Your task to perform on an android device: uninstall "Adobe Acrobat Reader: Edit PDF" Image 0: 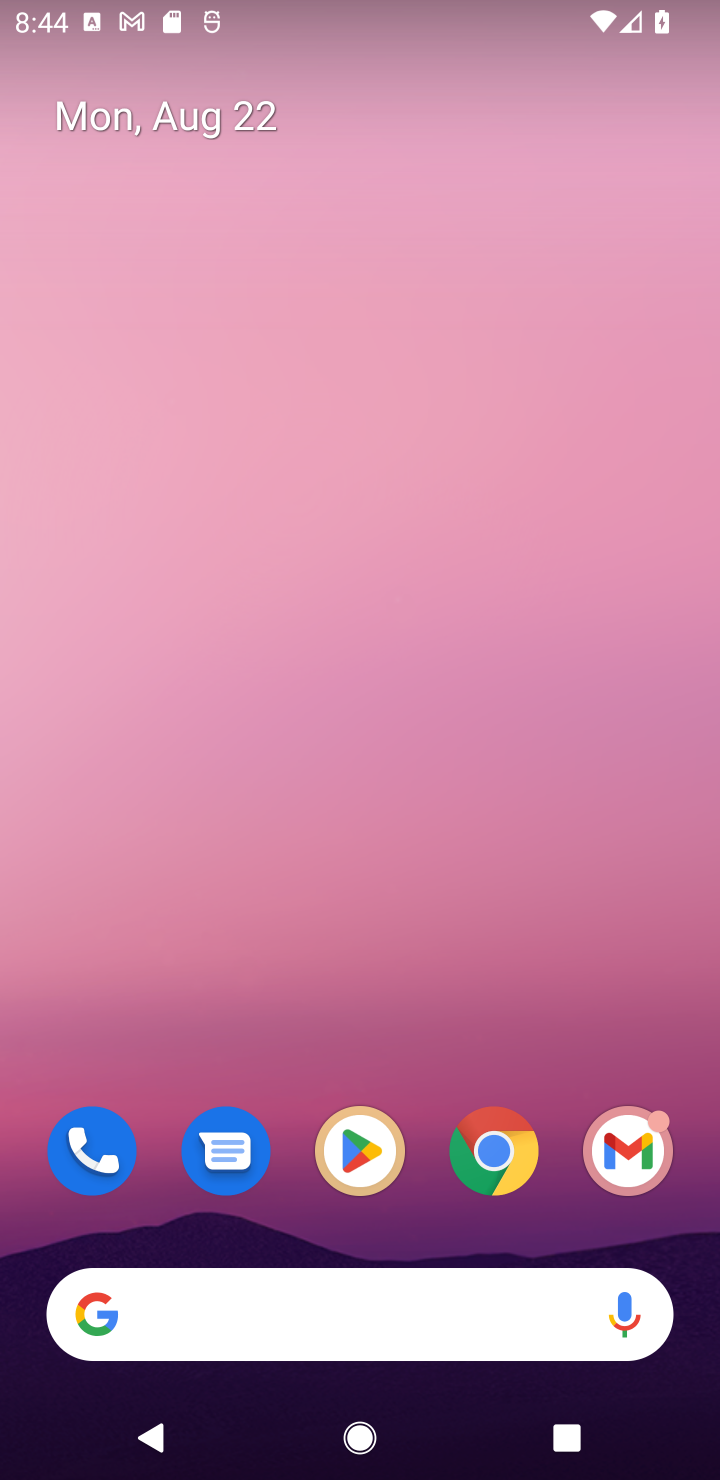
Step 0: click (367, 1143)
Your task to perform on an android device: uninstall "Adobe Acrobat Reader: Edit PDF" Image 1: 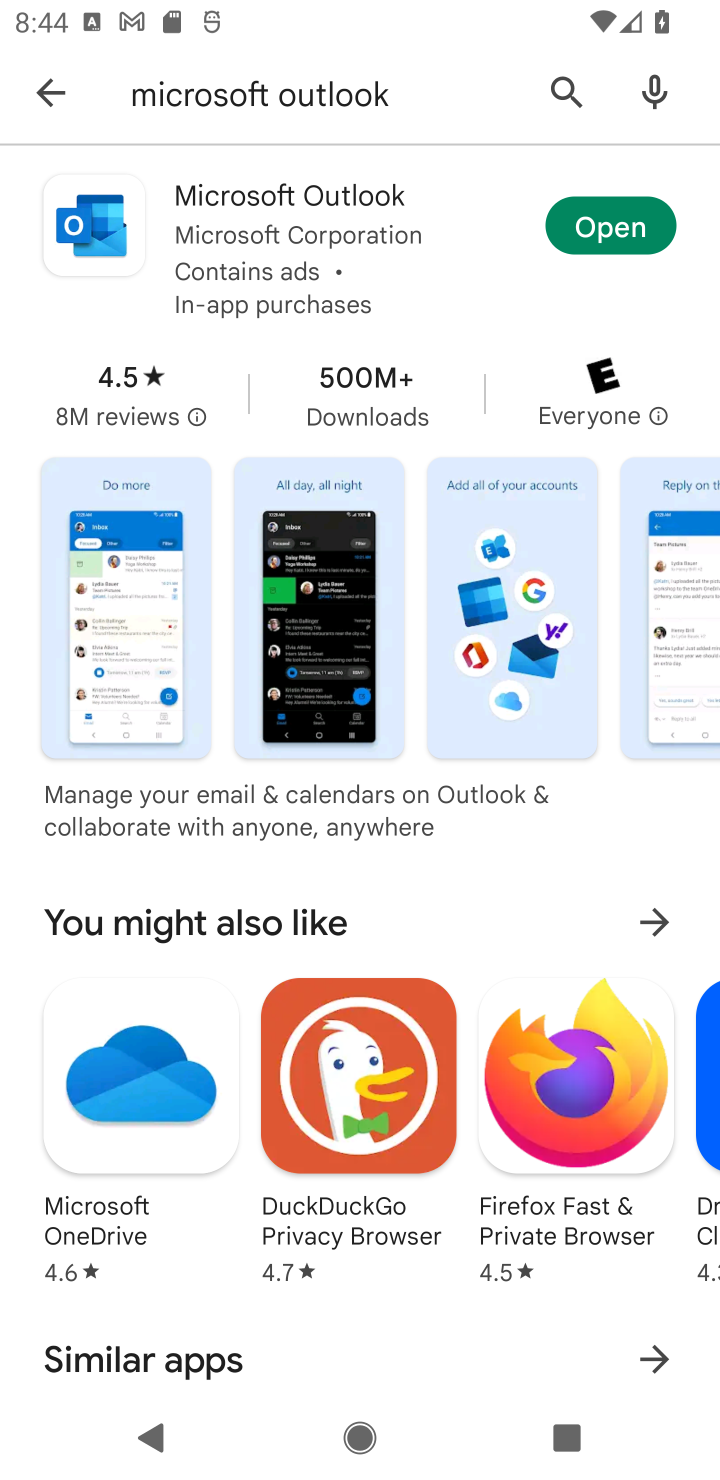
Step 1: click (553, 89)
Your task to perform on an android device: uninstall "Adobe Acrobat Reader: Edit PDF" Image 2: 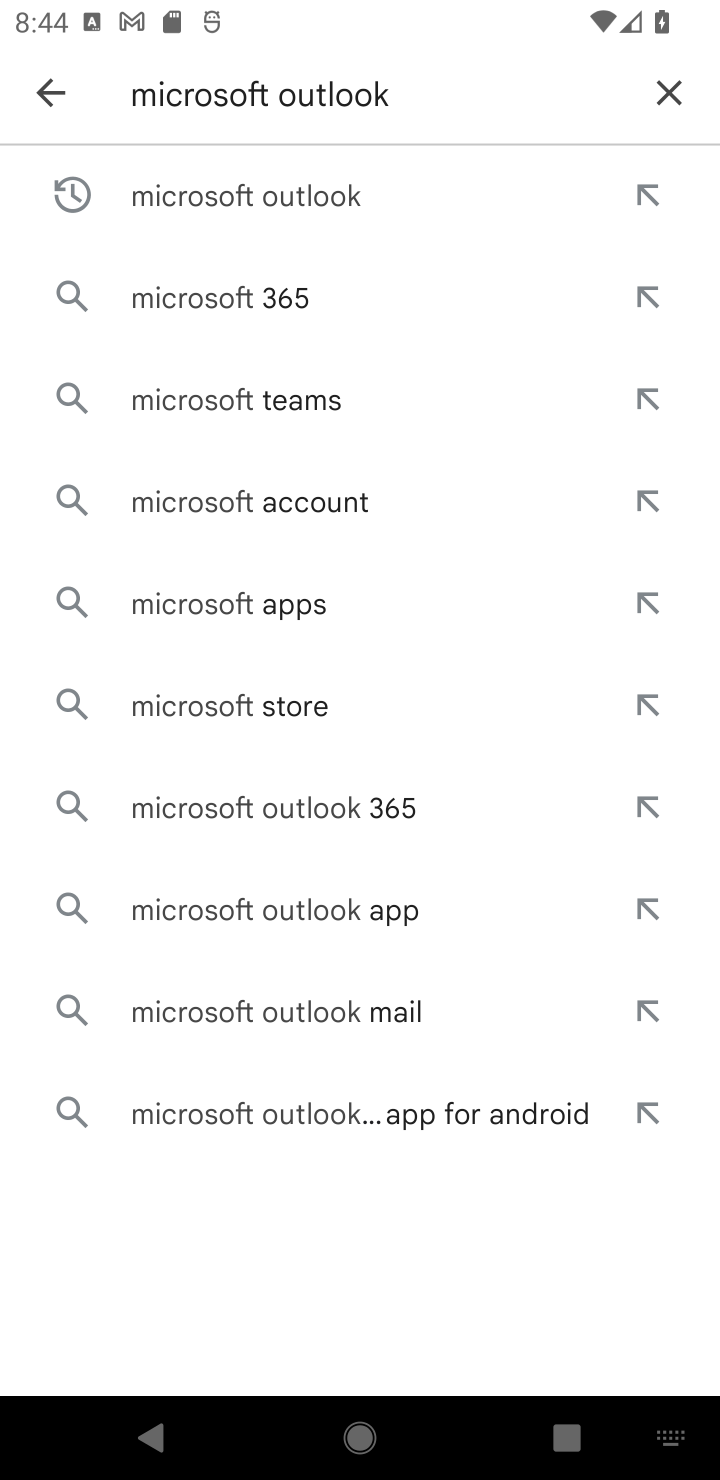
Step 2: click (656, 68)
Your task to perform on an android device: uninstall "Adobe Acrobat Reader: Edit PDF" Image 3: 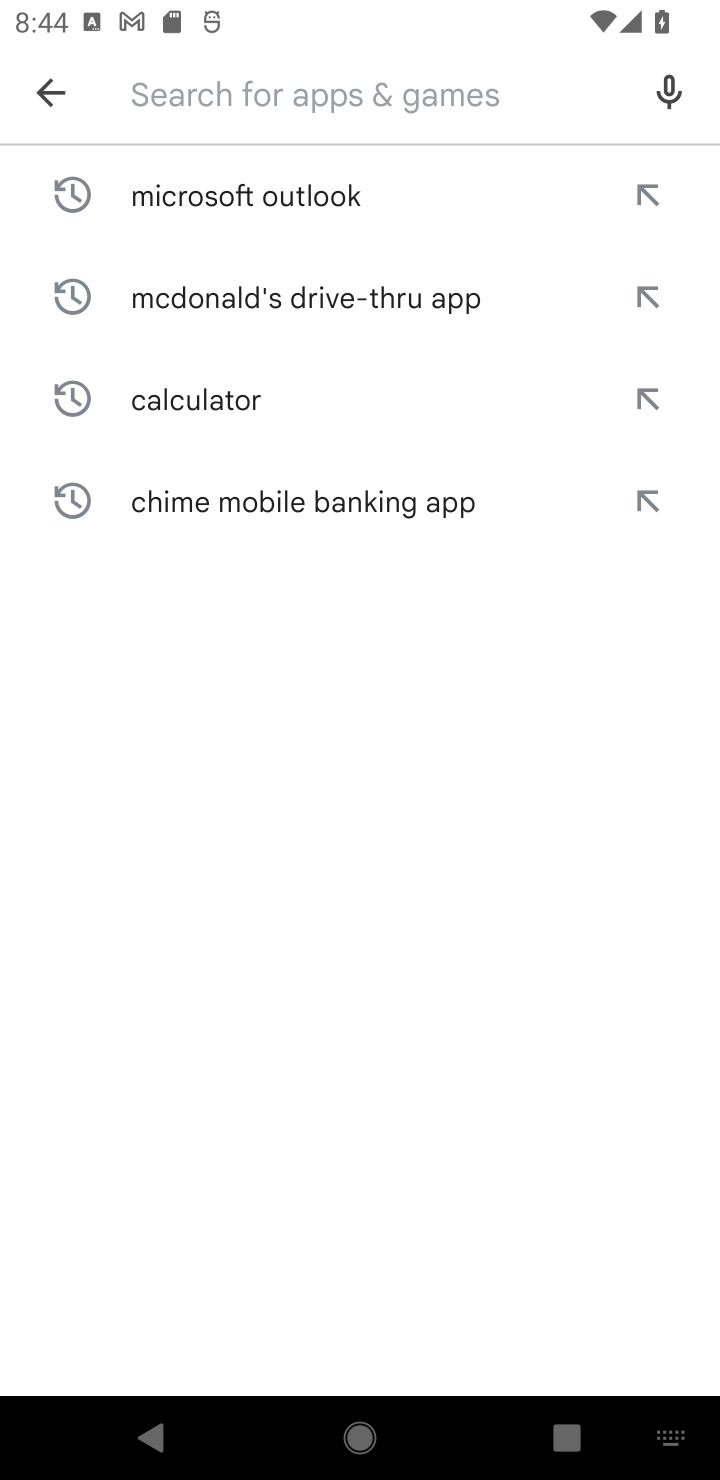
Step 3: type "Adobe Acrobat Reader: Edit PDF"
Your task to perform on an android device: uninstall "Adobe Acrobat Reader: Edit PDF" Image 4: 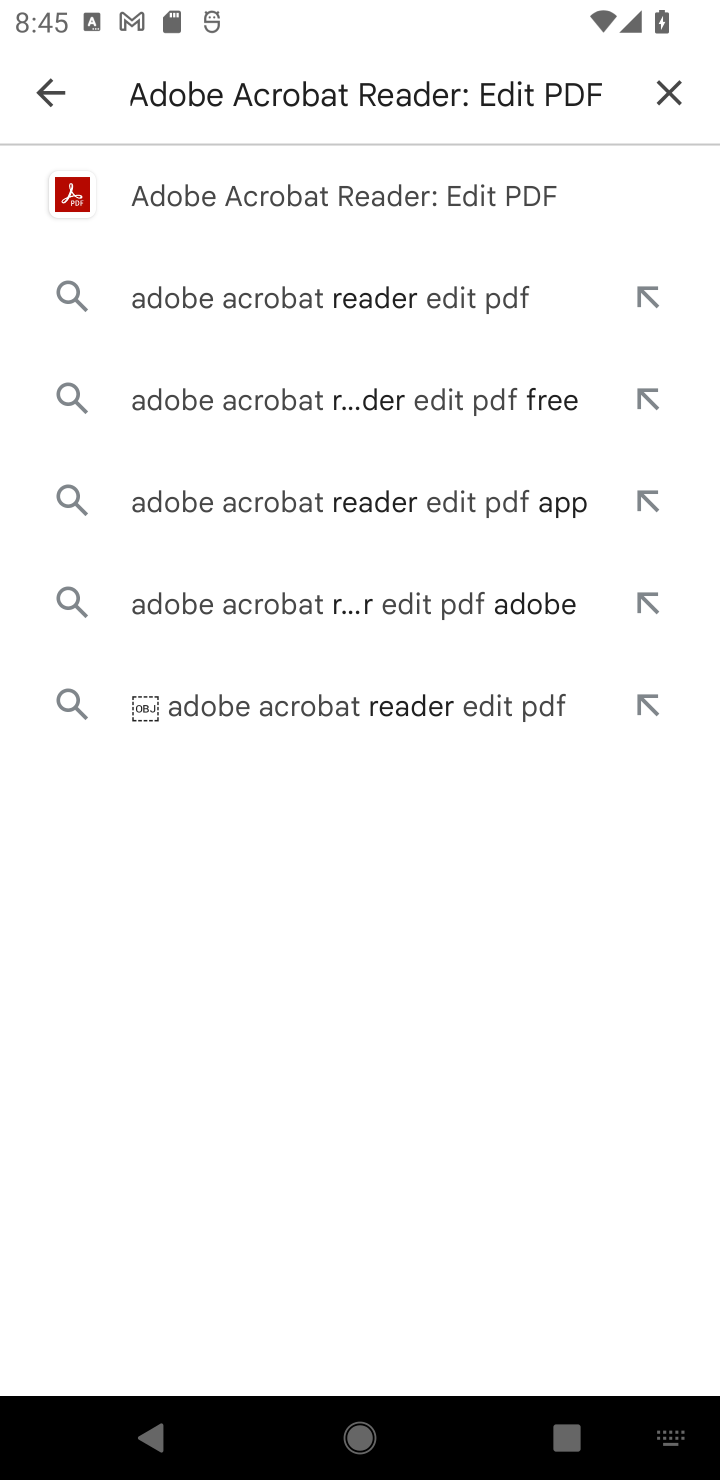
Step 4: click (355, 200)
Your task to perform on an android device: uninstall "Adobe Acrobat Reader: Edit PDF" Image 5: 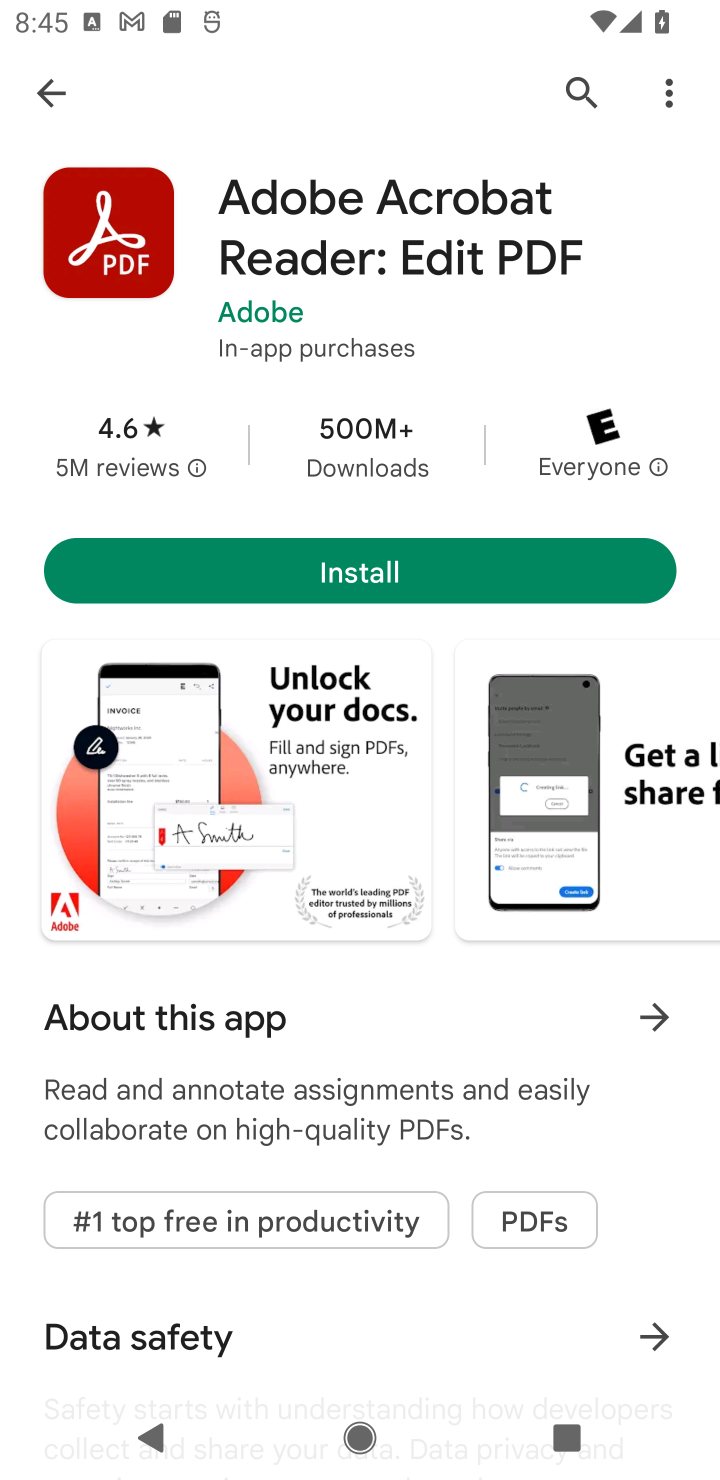
Step 5: task complete